Your task to perform on an android device: stop showing notifications on the lock screen Image 0: 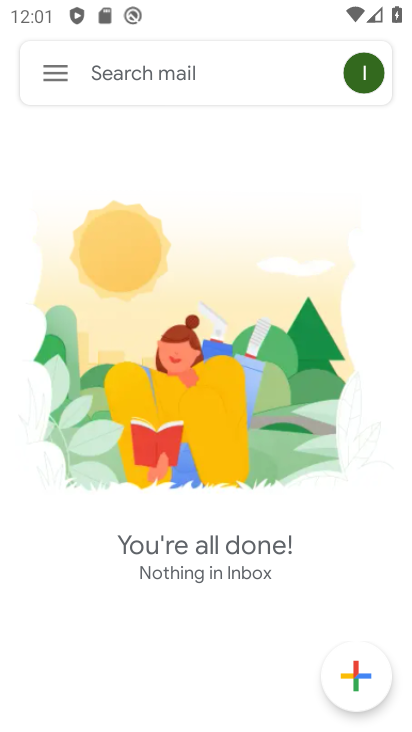
Step 0: press home button
Your task to perform on an android device: stop showing notifications on the lock screen Image 1: 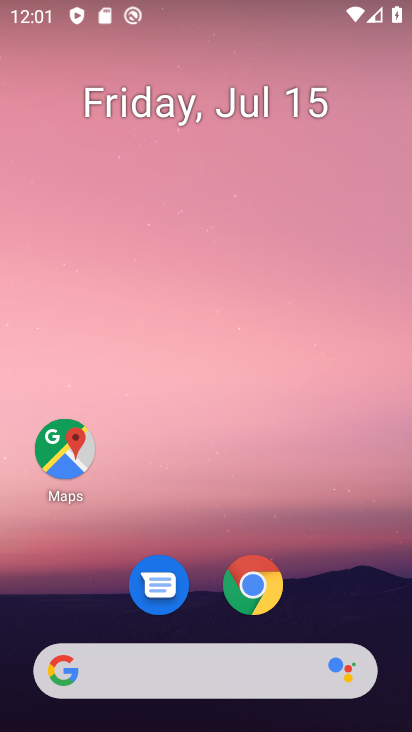
Step 1: drag from (321, 560) to (326, 77)
Your task to perform on an android device: stop showing notifications on the lock screen Image 2: 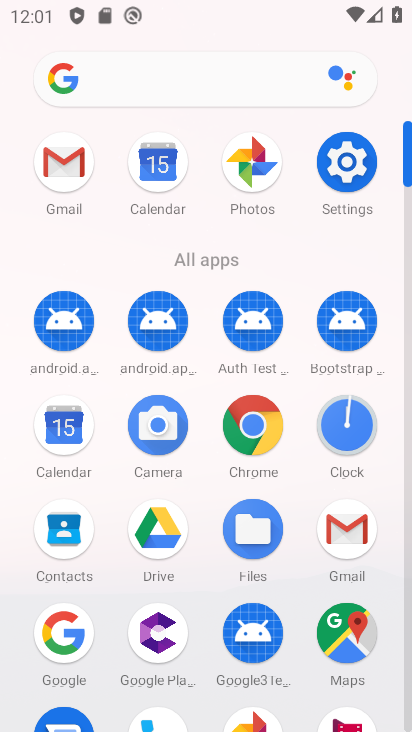
Step 2: click (343, 174)
Your task to perform on an android device: stop showing notifications on the lock screen Image 3: 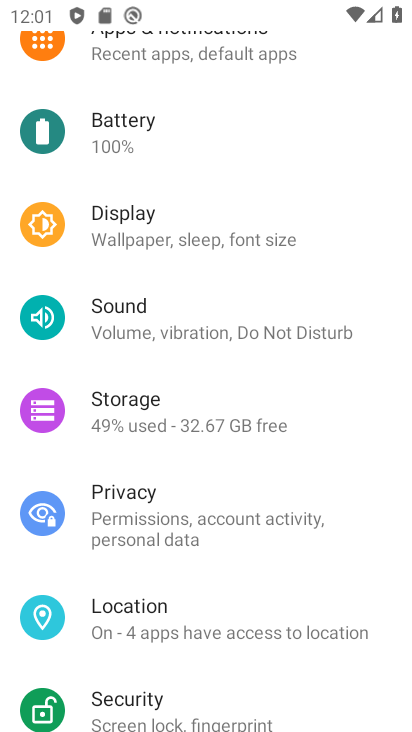
Step 3: drag from (237, 201) to (208, 425)
Your task to perform on an android device: stop showing notifications on the lock screen Image 4: 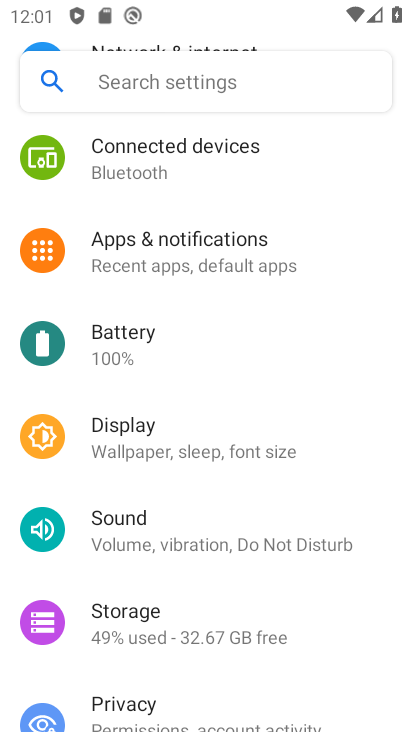
Step 4: click (205, 261)
Your task to perform on an android device: stop showing notifications on the lock screen Image 5: 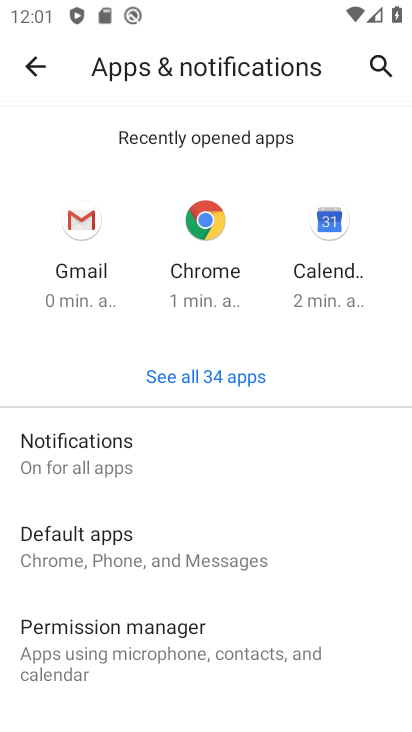
Step 5: click (130, 439)
Your task to perform on an android device: stop showing notifications on the lock screen Image 6: 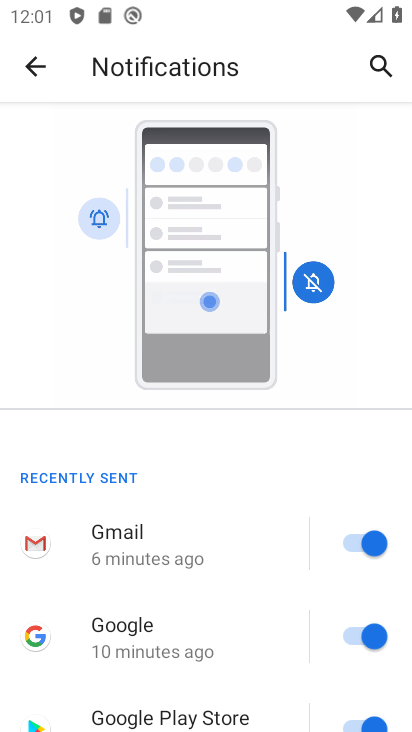
Step 6: drag from (222, 584) to (281, 48)
Your task to perform on an android device: stop showing notifications on the lock screen Image 7: 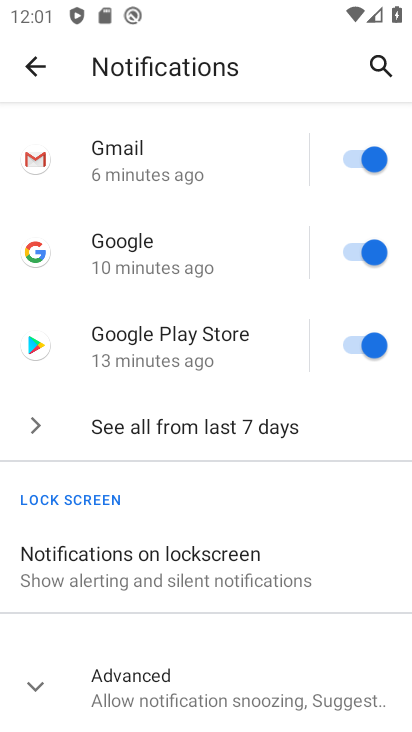
Step 7: click (158, 562)
Your task to perform on an android device: stop showing notifications on the lock screen Image 8: 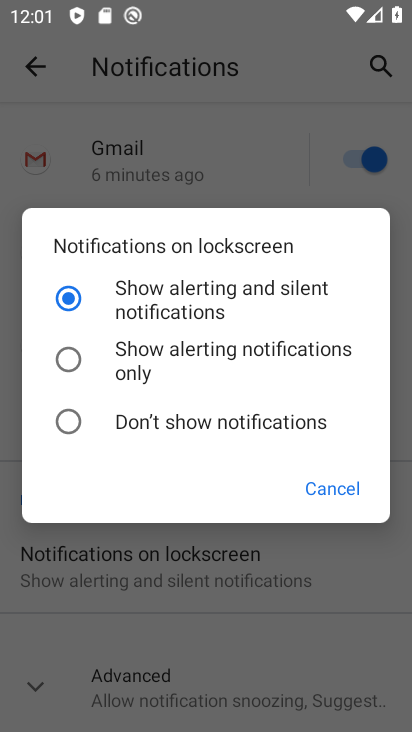
Step 8: click (73, 422)
Your task to perform on an android device: stop showing notifications on the lock screen Image 9: 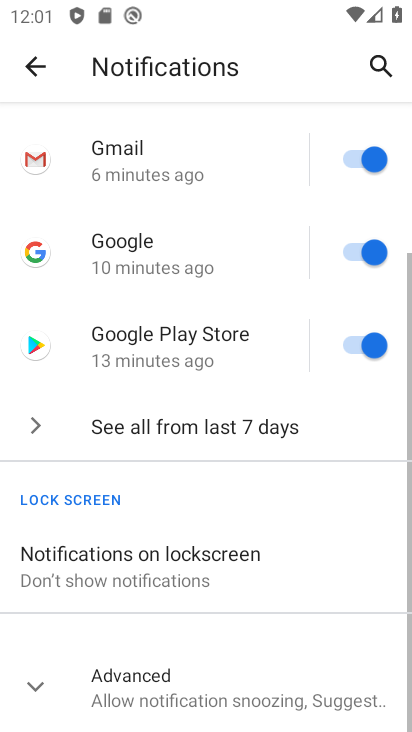
Step 9: task complete